Your task to perform on an android device: check google app version Image 0: 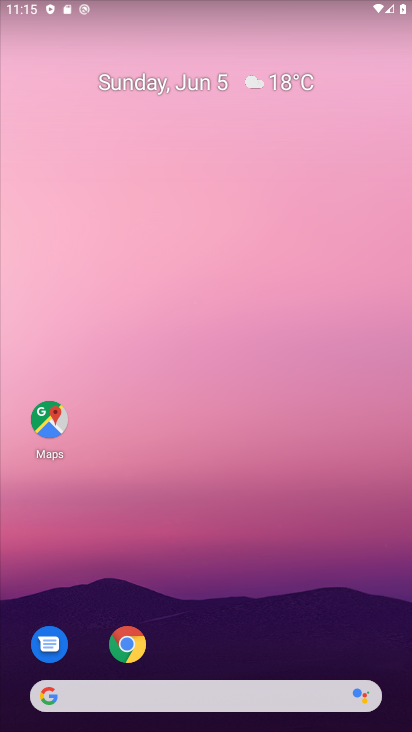
Step 0: drag from (260, 715) to (254, 175)
Your task to perform on an android device: check google app version Image 1: 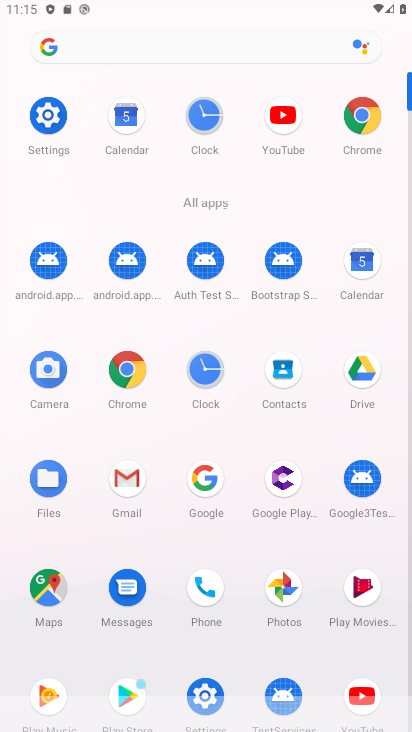
Step 1: click (149, 369)
Your task to perform on an android device: check google app version Image 2: 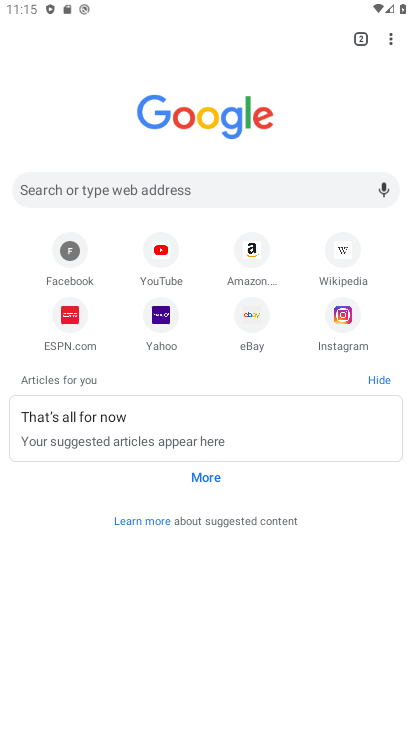
Step 2: click (379, 44)
Your task to perform on an android device: check google app version Image 3: 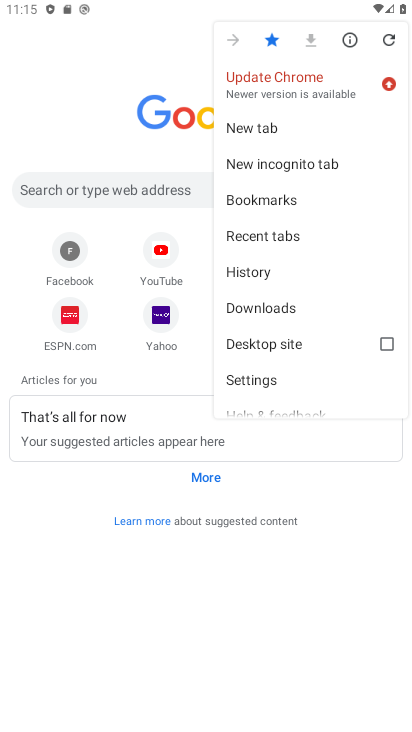
Step 3: click (242, 388)
Your task to perform on an android device: check google app version Image 4: 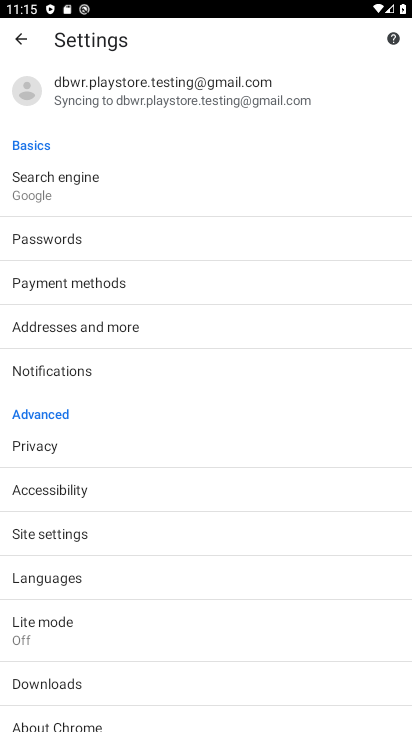
Step 4: drag from (156, 535) to (152, 321)
Your task to perform on an android device: check google app version Image 5: 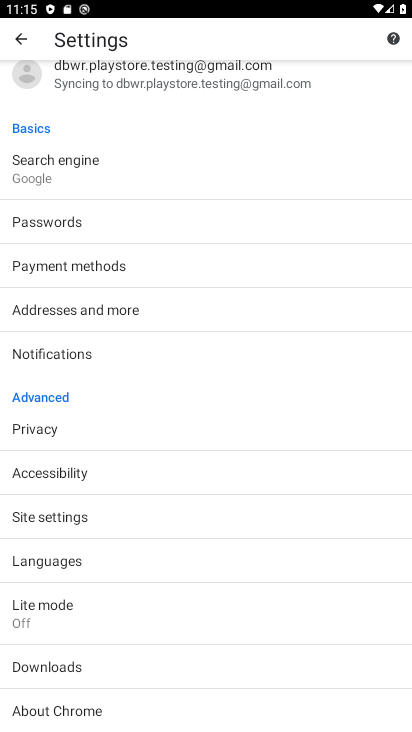
Step 5: click (63, 714)
Your task to perform on an android device: check google app version Image 6: 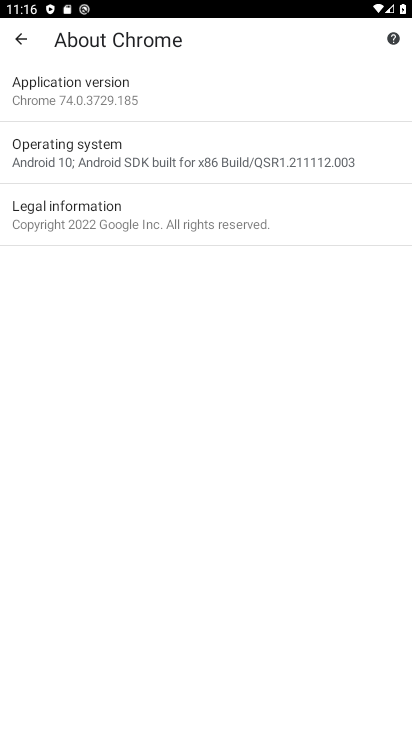
Step 6: click (76, 79)
Your task to perform on an android device: check google app version Image 7: 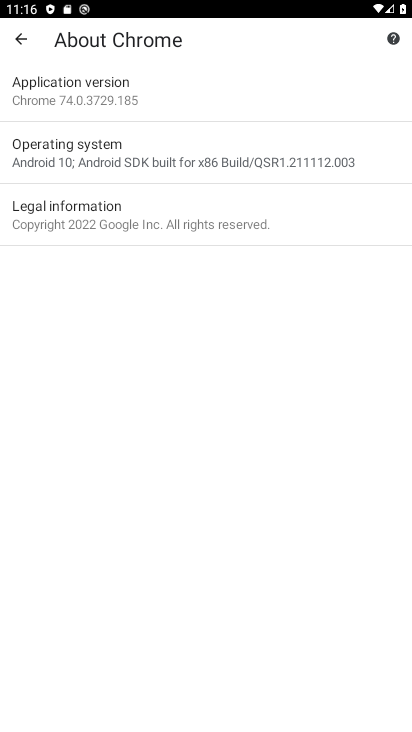
Step 7: task complete